Your task to perform on an android device: turn off location history Image 0: 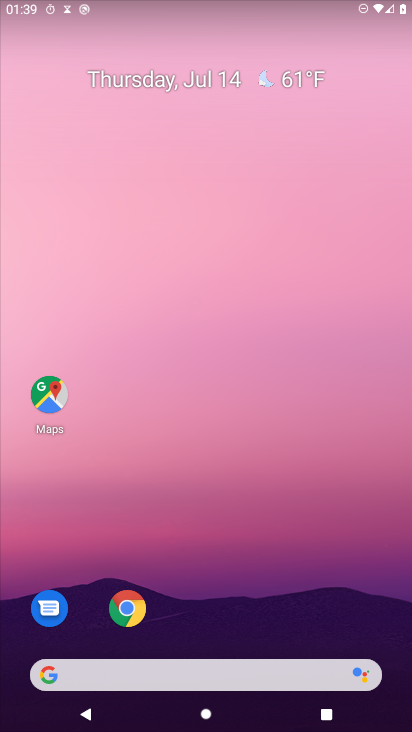
Step 0: press home button
Your task to perform on an android device: turn off location history Image 1: 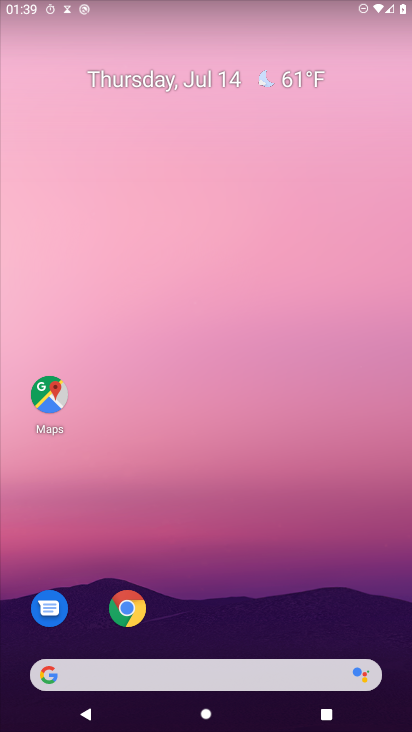
Step 1: drag from (263, 585) to (320, 5)
Your task to perform on an android device: turn off location history Image 2: 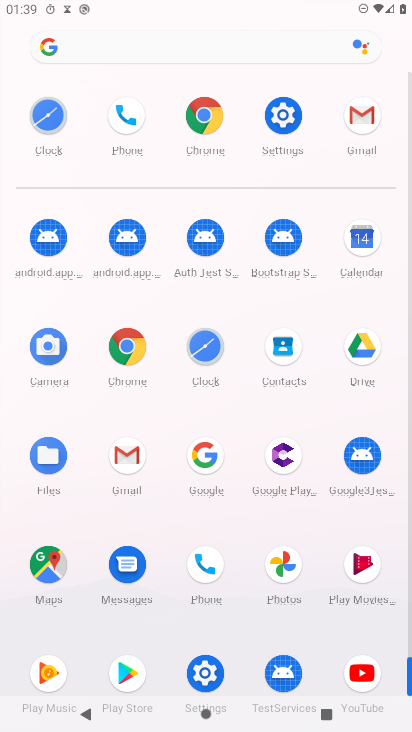
Step 2: click (280, 129)
Your task to perform on an android device: turn off location history Image 3: 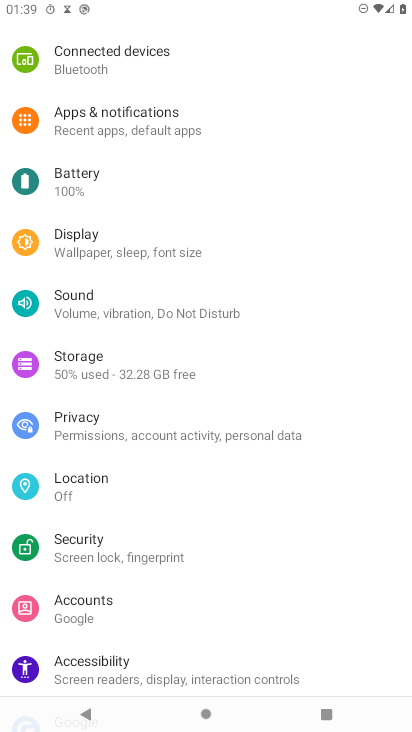
Step 3: click (94, 485)
Your task to perform on an android device: turn off location history Image 4: 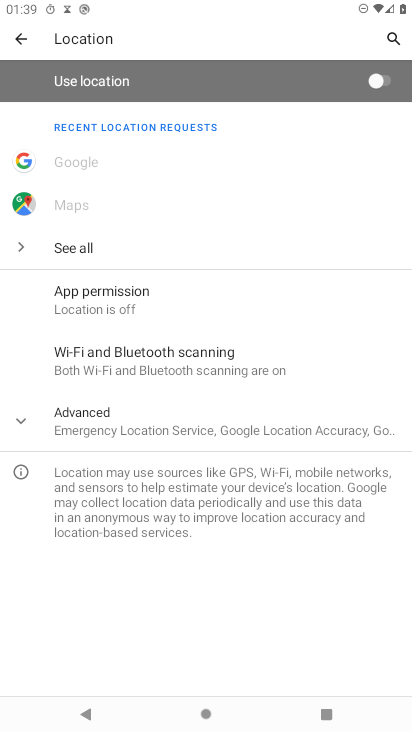
Step 4: click (29, 418)
Your task to perform on an android device: turn off location history Image 5: 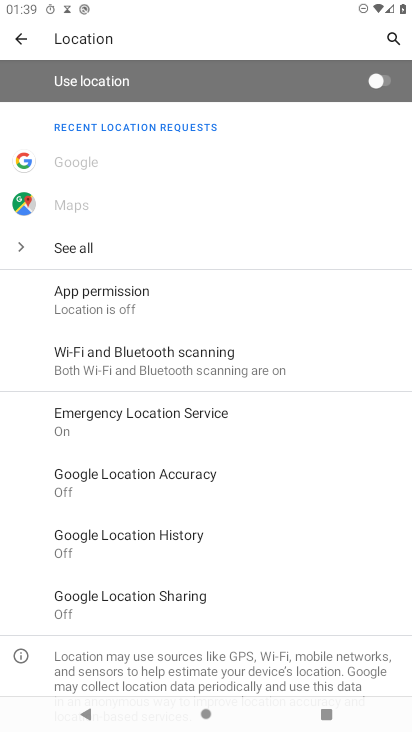
Step 5: task complete